Your task to perform on an android device: Open CNN.com Image 0: 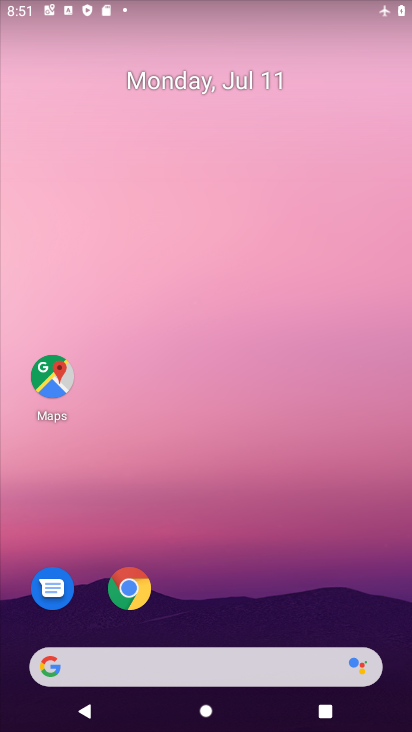
Step 0: drag from (388, 601) to (291, 239)
Your task to perform on an android device: Open CNN.com Image 1: 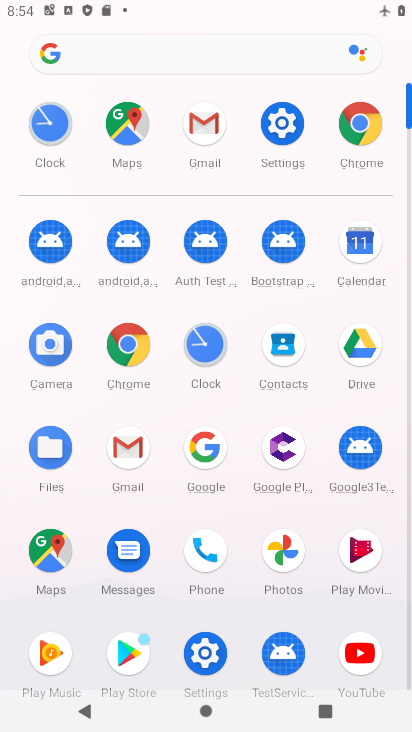
Step 1: click (206, 459)
Your task to perform on an android device: Open CNN.com Image 2: 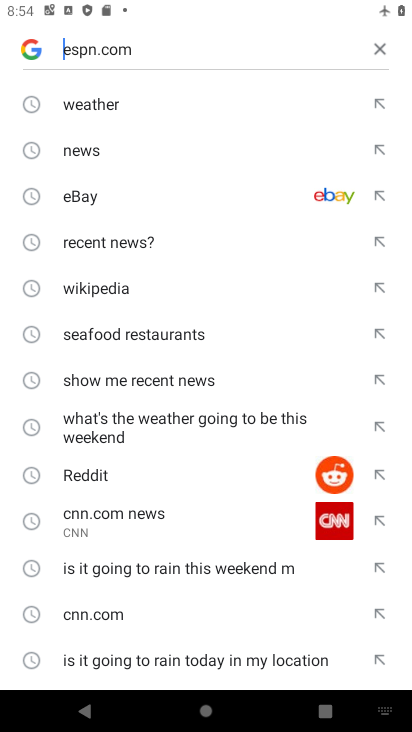
Step 2: click (120, 514)
Your task to perform on an android device: Open CNN.com Image 3: 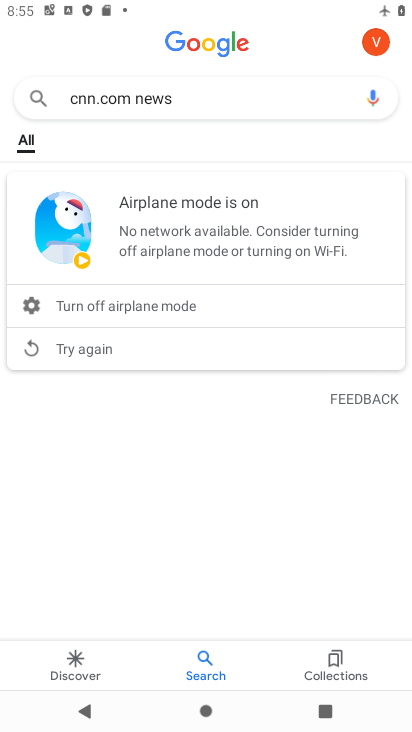
Step 3: task complete